Your task to perform on an android device: Go to sound settings Image 0: 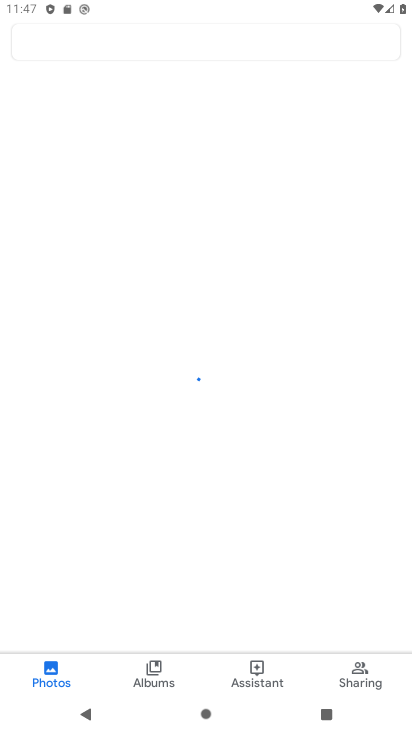
Step 0: press home button
Your task to perform on an android device: Go to sound settings Image 1: 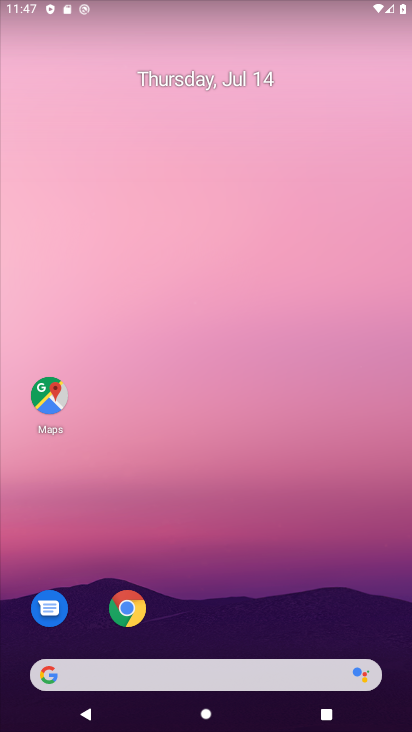
Step 1: drag from (205, 563) to (213, 255)
Your task to perform on an android device: Go to sound settings Image 2: 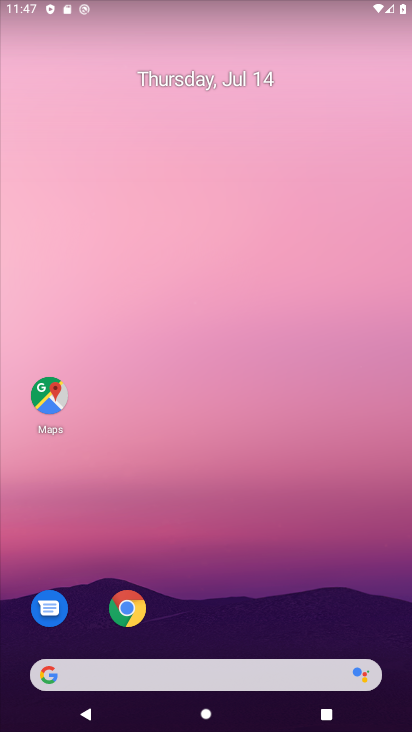
Step 2: drag from (175, 605) to (178, 162)
Your task to perform on an android device: Go to sound settings Image 3: 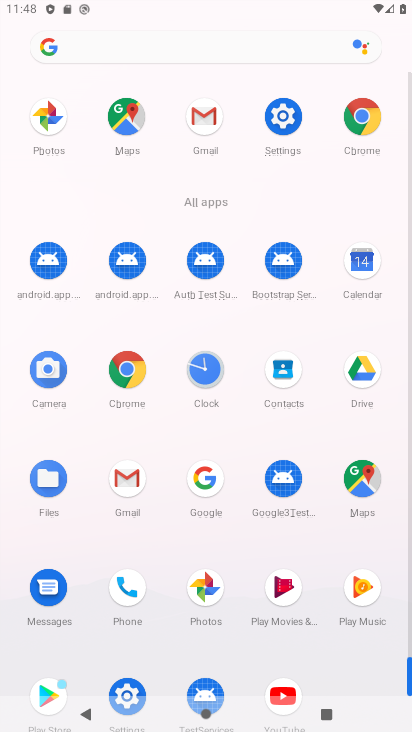
Step 3: click (278, 122)
Your task to perform on an android device: Go to sound settings Image 4: 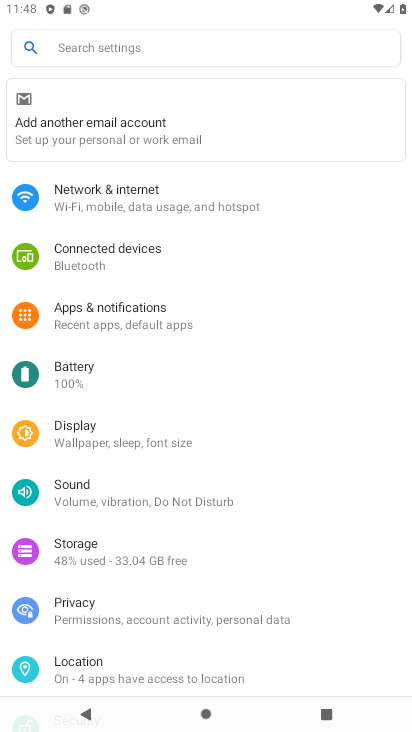
Step 4: click (108, 484)
Your task to perform on an android device: Go to sound settings Image 5: 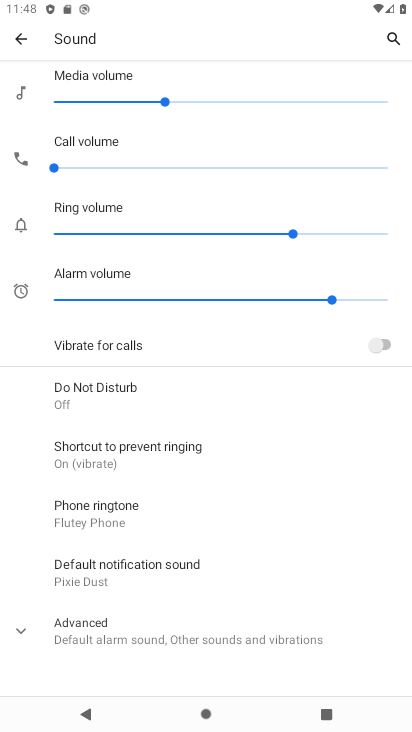
Step 5: task complete